Your task to perform on an android device: Search for a new perfume Image 0: 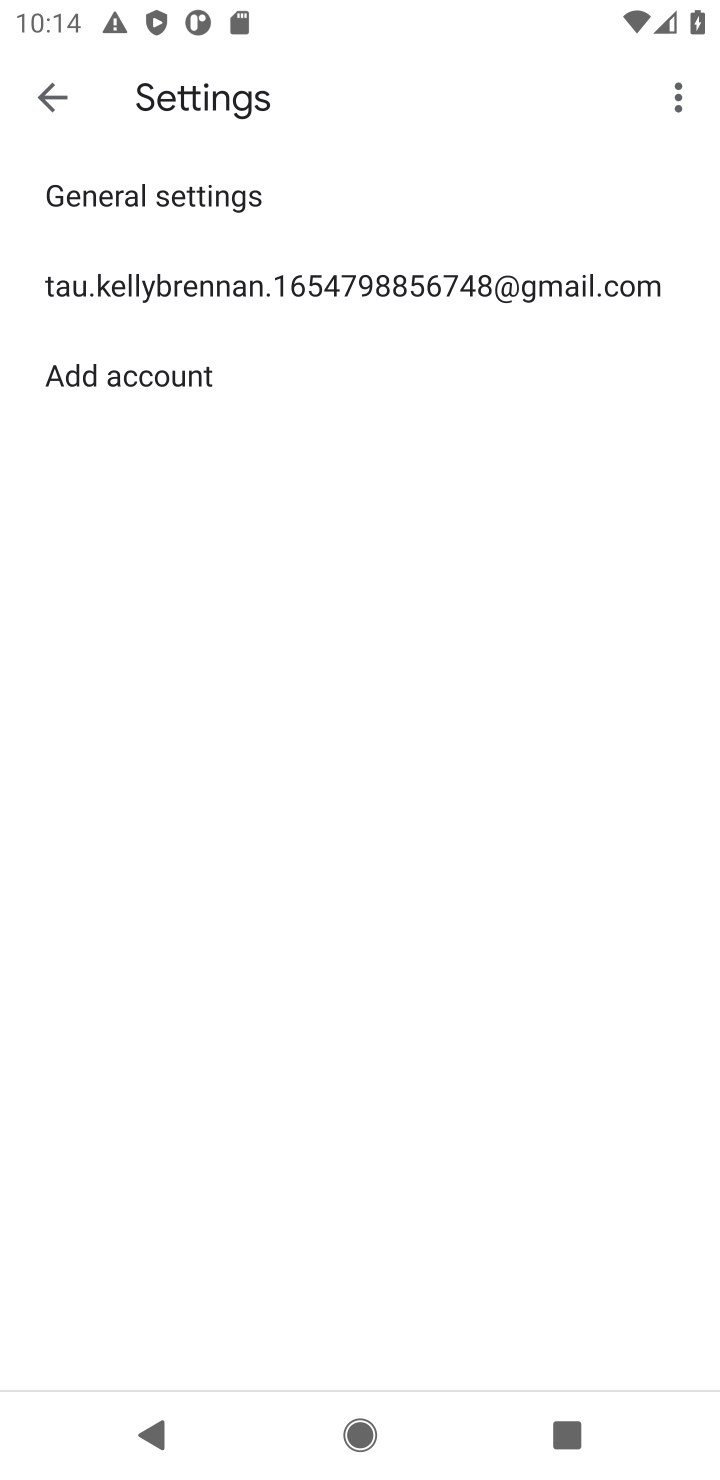
Step 0: press home button
Your task to perform on an android device: Search for a new perfume Image 1: 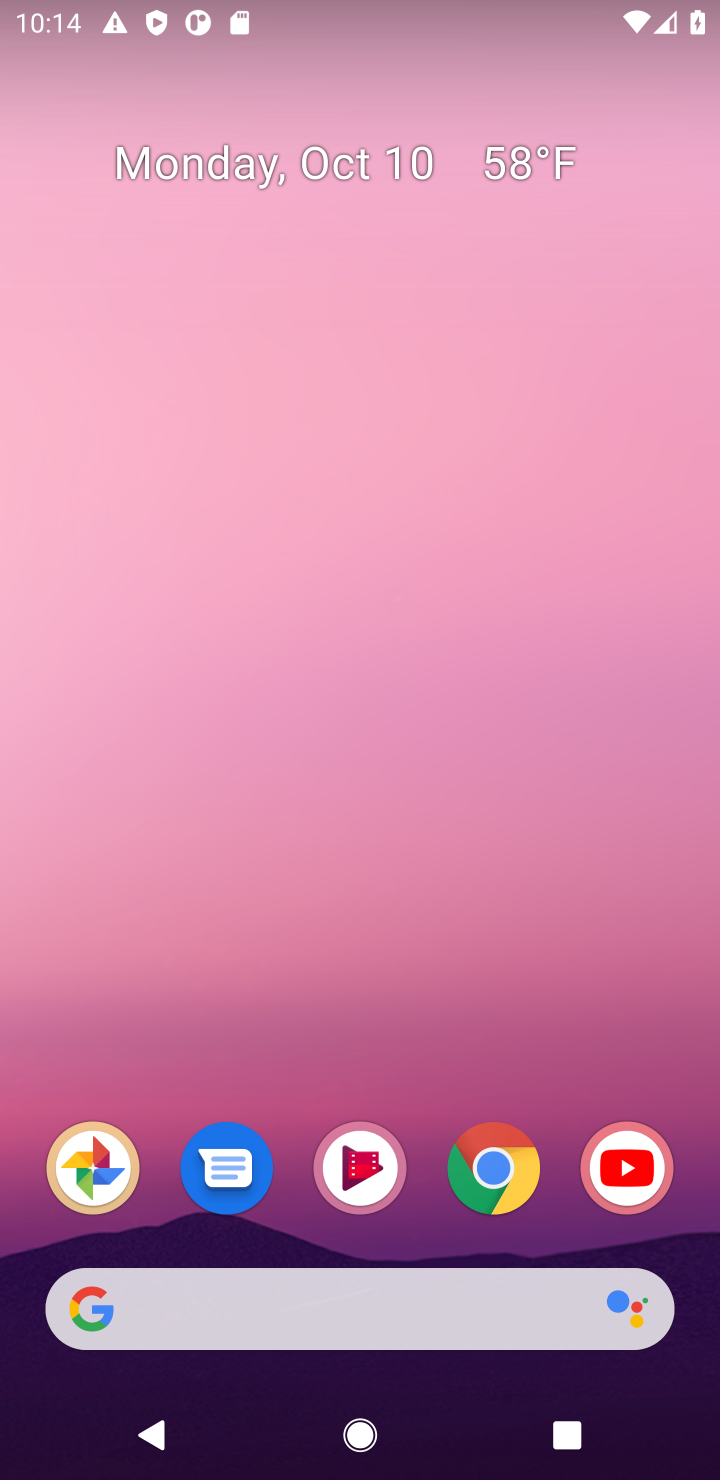
Step 1: click (415, 1291)
Your task to perform on an android device: Search for a new perfume Image 2: 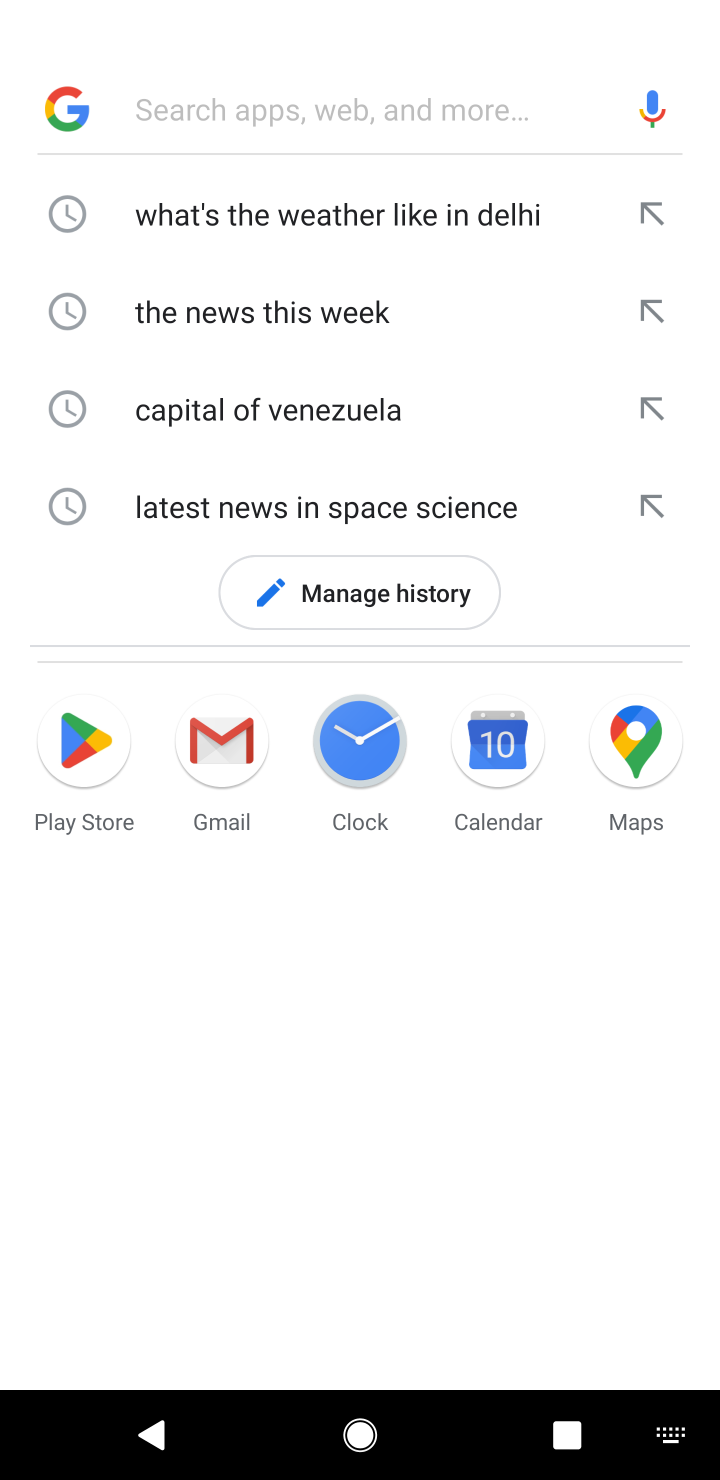
Step 2: type "new perfume"
Your task to perform on an android device: Search for a new perfume Image 3: 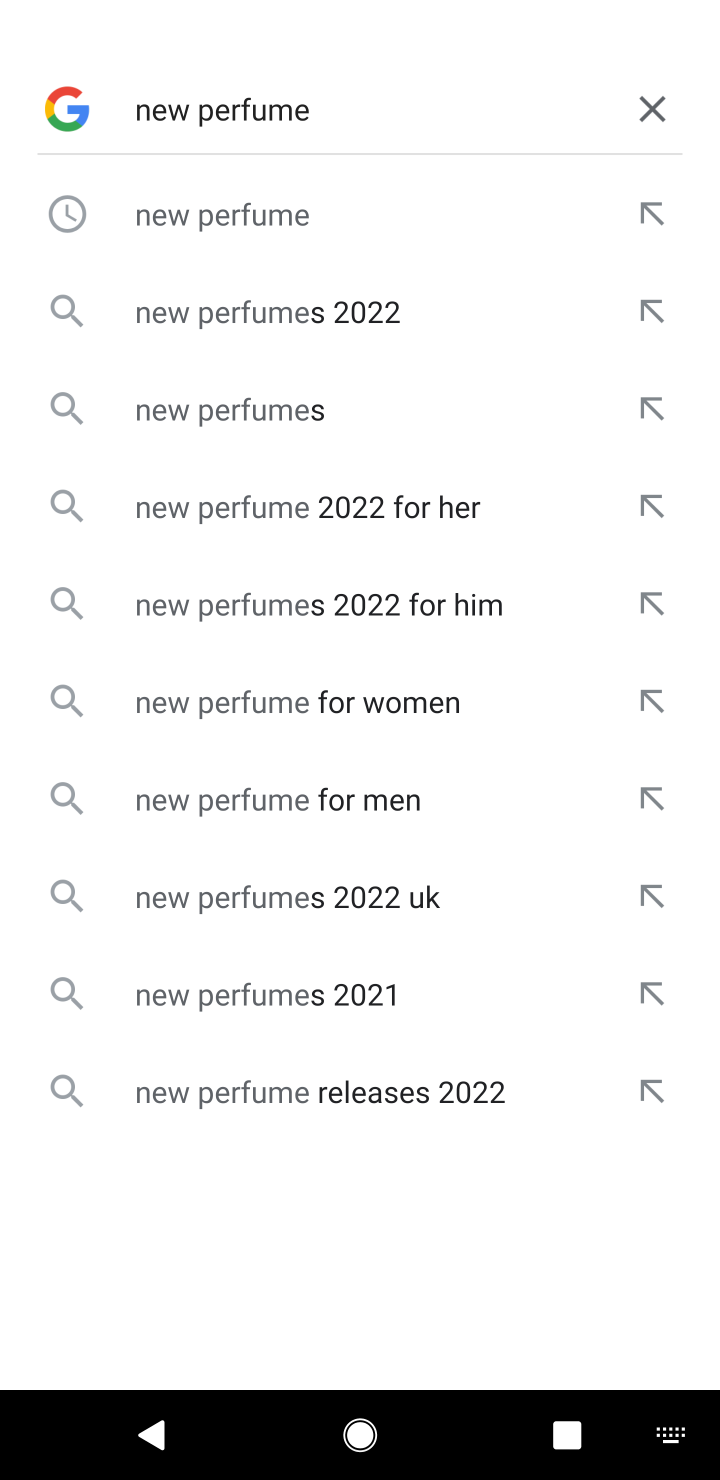
Step 3: click (239, 203)
Your task to perform on an android device: Search for a new perfume Image 4: 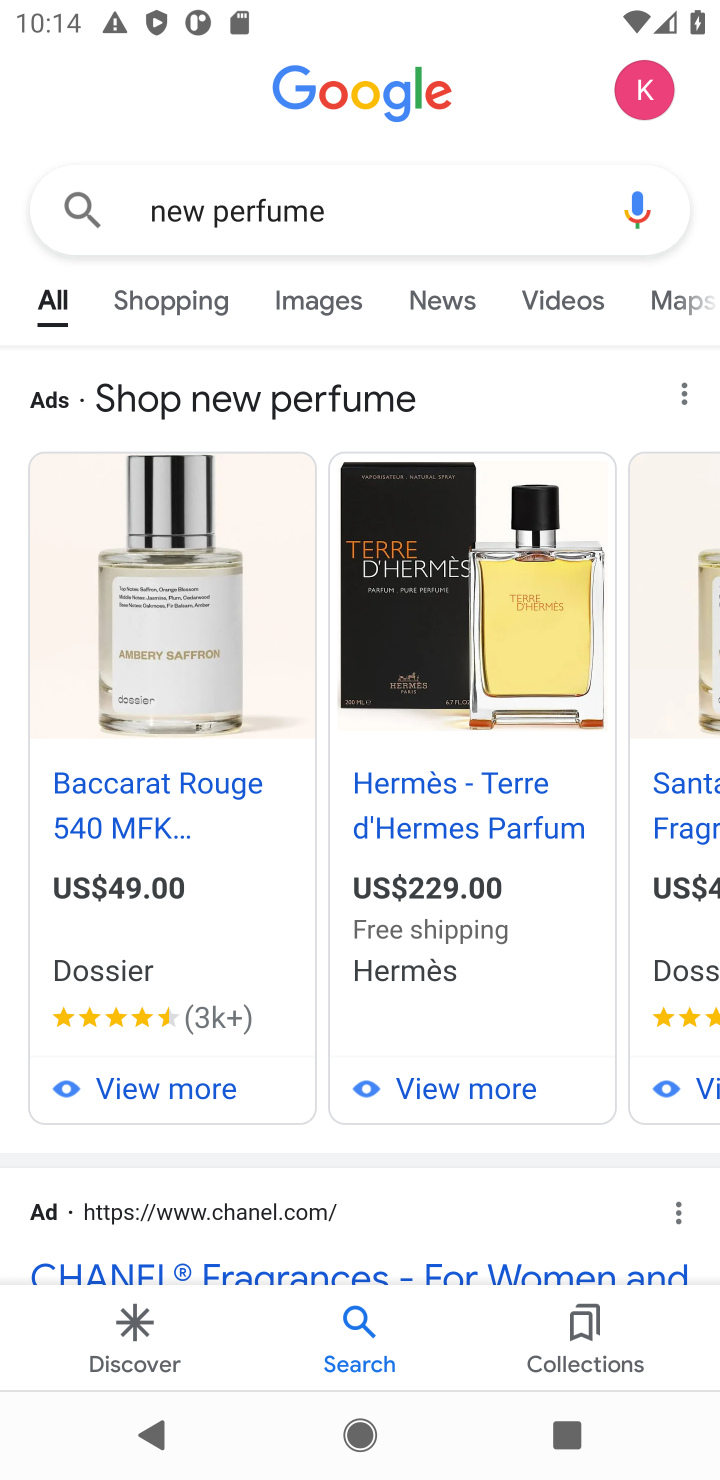
Step 4: task complete